Your task to perform on an android device: Show me the alarms in the clock app Image 0: 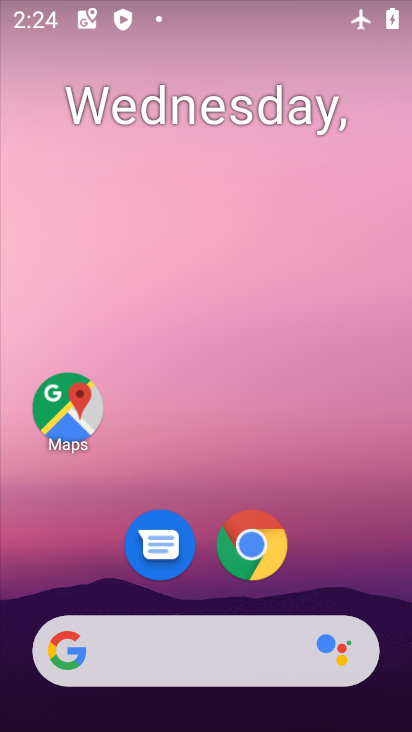
Step 0: drag from (324, 548) to (275, 116)
Your task to perform on an android device: Show me the alarms in the clock app Image 1: 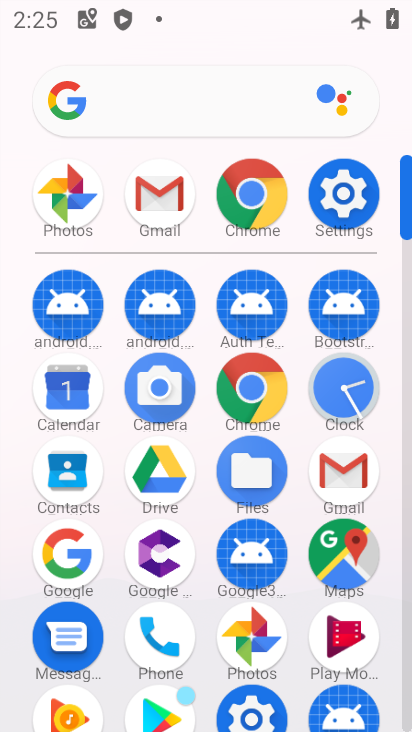
Step 1: click (345, 397)
Your task to perform on an android device: Show me the alarms in the clock app Image 2: 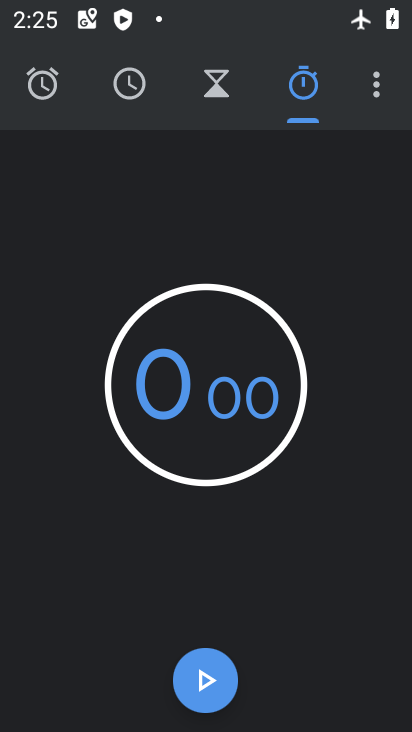
Step 2: click (52, 87)
Your task to perform on an android device: Show me the alarms in the clock app Image 3: 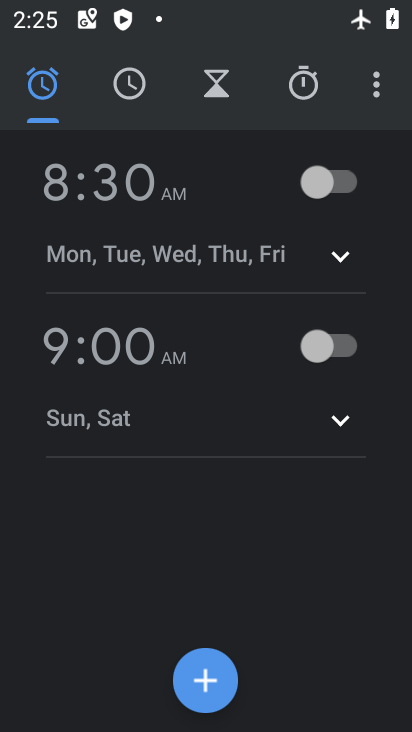
Step 3: task complete